Your task to perform on an android device: turn pop-ups on in chrome Image 0: 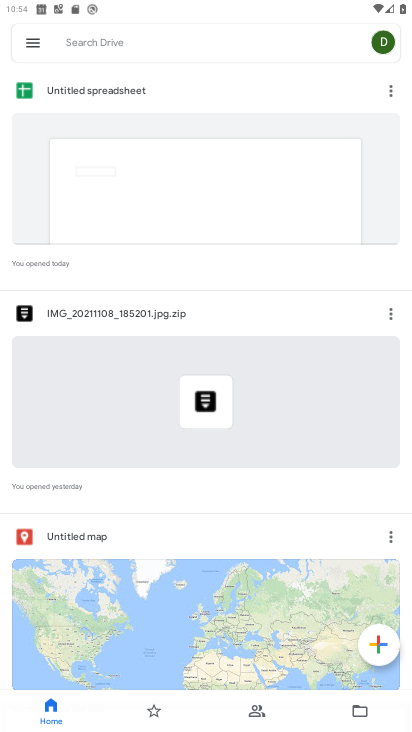
Step 0: press home button
Your task to perform on an android device: turn pop-ups on in chrome Image 1: 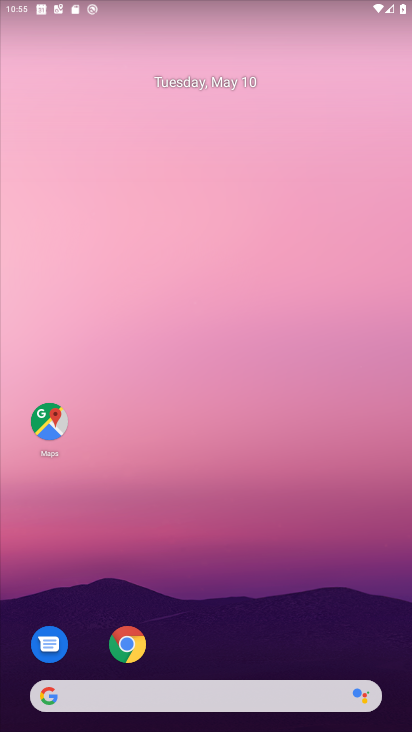
Step 1: drag from (241, 721) to (284, 35)
Your task to perform on an android device: turn pop-ups on in chrome Image 2: 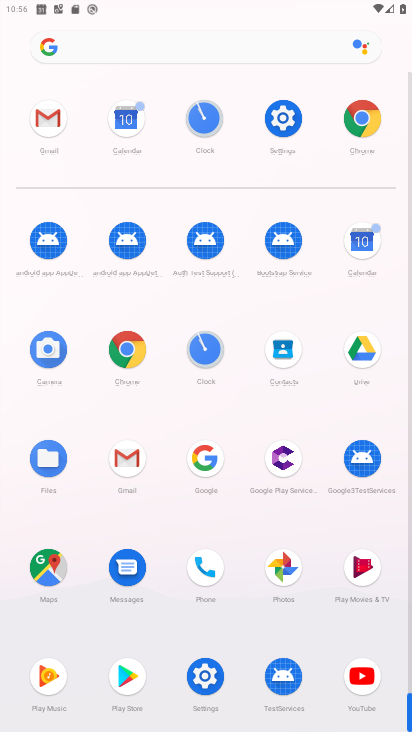
Step 2: click (365, 122)
Your task to perform on an android device: turn pop-ups on in chrome Image 3: 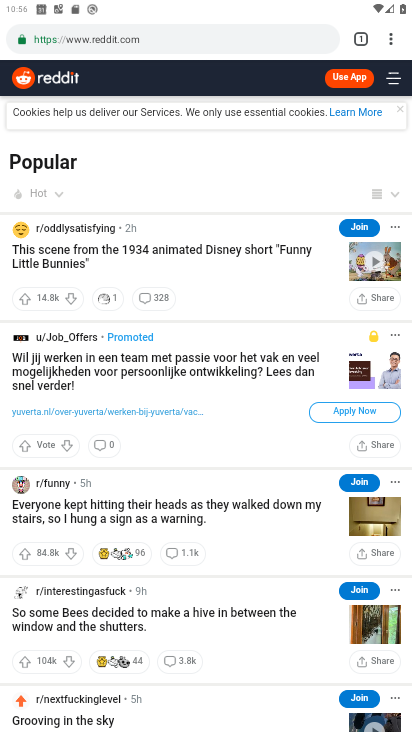
Step 3: click (390, 33)
Your task to perform on an android device: turn pop-ups on in chrome Image 4: 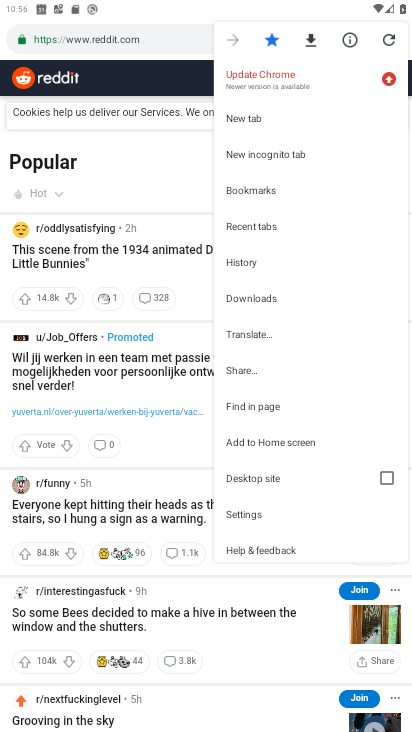
Step 4: click (265, 519)
Your task to perform on an android device: turn pop-ups on in chrome Image 5: 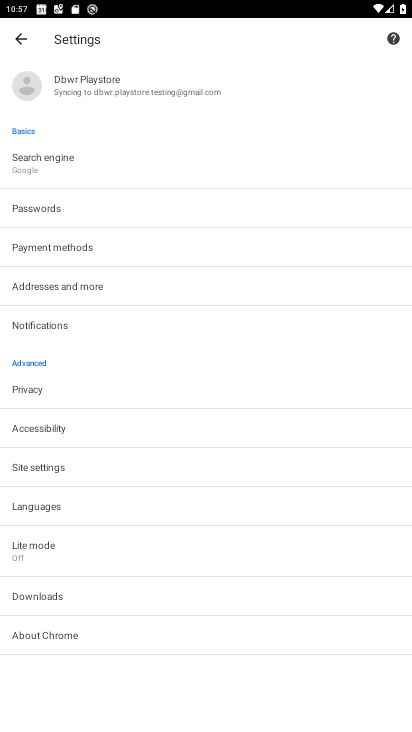
Step 5: click (73, 467)
Your task to perform on an android device: turn pop-ups on in chrome Image 6: 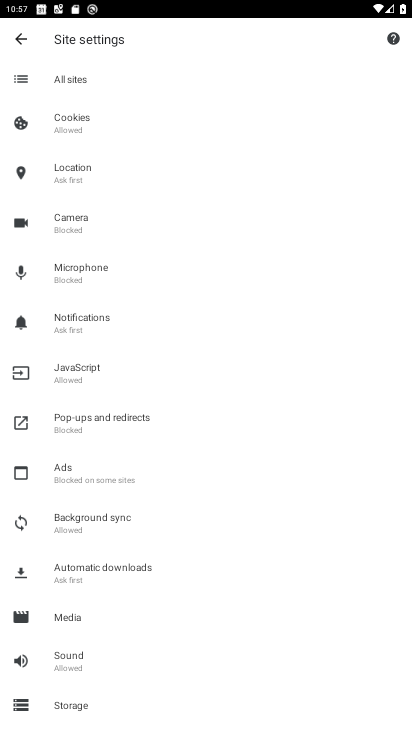
Step 6: click (116, 431)
Your task to perform on an android device: turn pop-ups on in chrome Image 7: 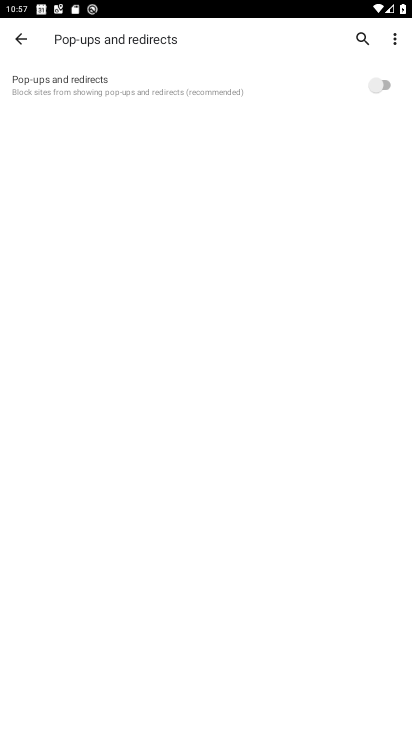
Step 7: click (385, 90)
Your task to perform on an android device: turn pop-ups on in chrome Image 8: 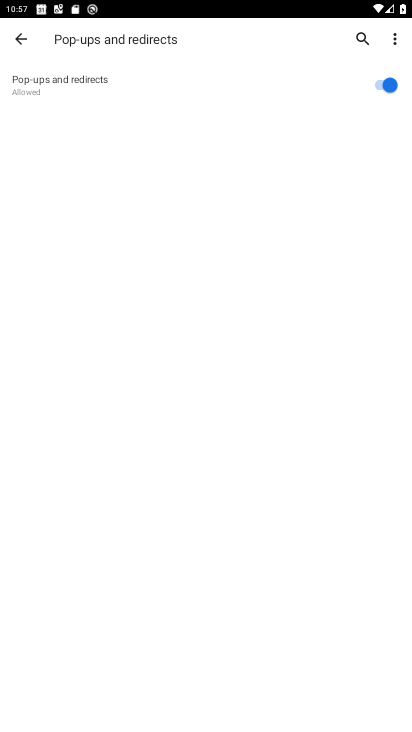
Step 8: task complete